Your task to perform on an android device: open wifi settings Image 0: 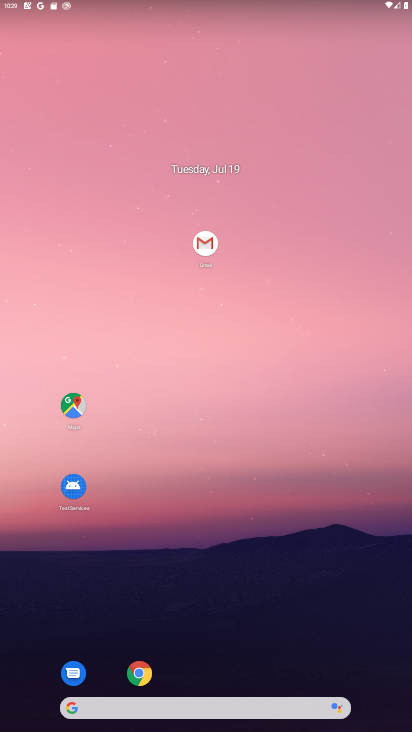
Step 0: drag from (298, 3) to (283, 362)
Your task to perform on an android device: open wifi settings Image 1: 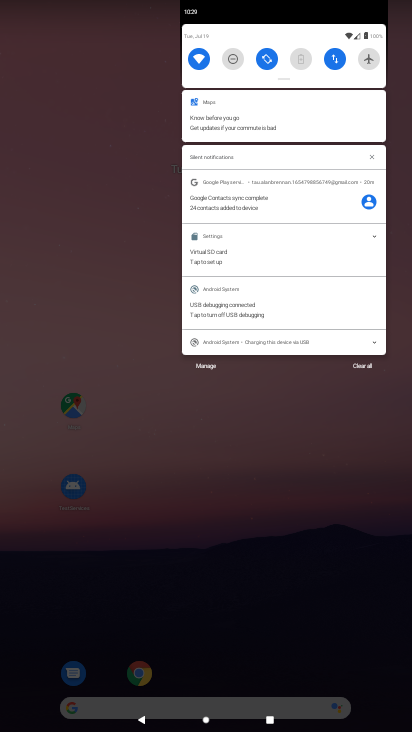
Step 1: click (197, 62)
Your task to perform on an android device: open wifi settings Image 2: 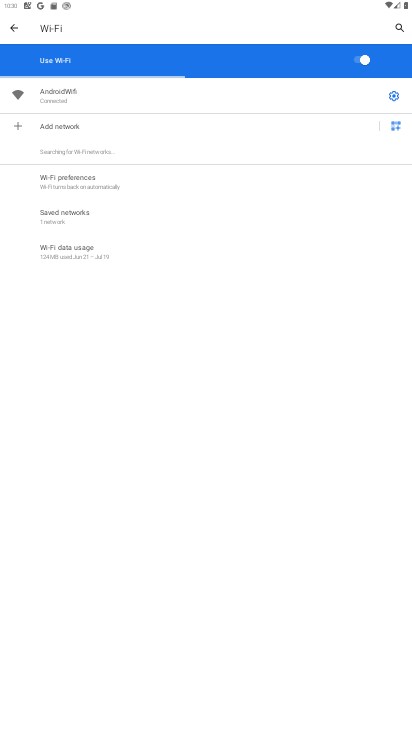
Step 2: task complete